Your task to perform on an android device: Open settings on Google Maps Image 0: 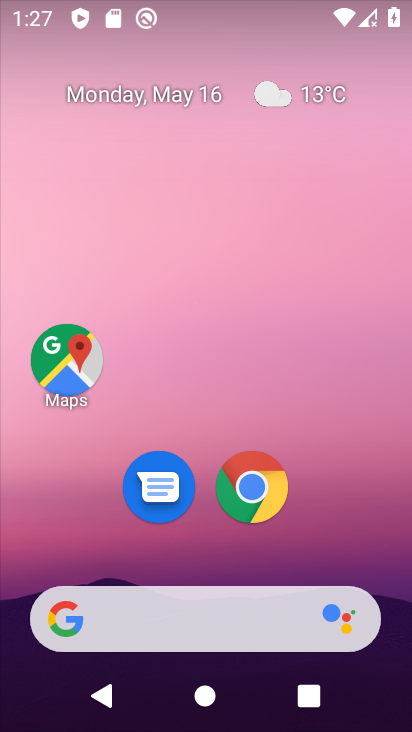
Step 0: click (81, 353)
Your task to perform on an android device: Open settings on Google Maps Image 1: 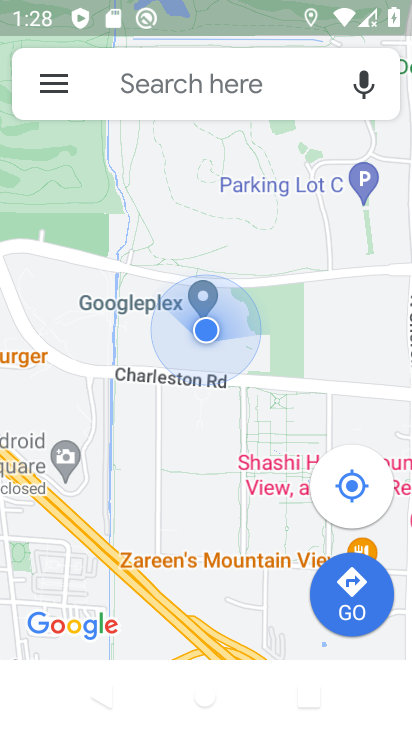
Step 1: task complete